Your task to perform on an android device: toggle notification dots Image 0: 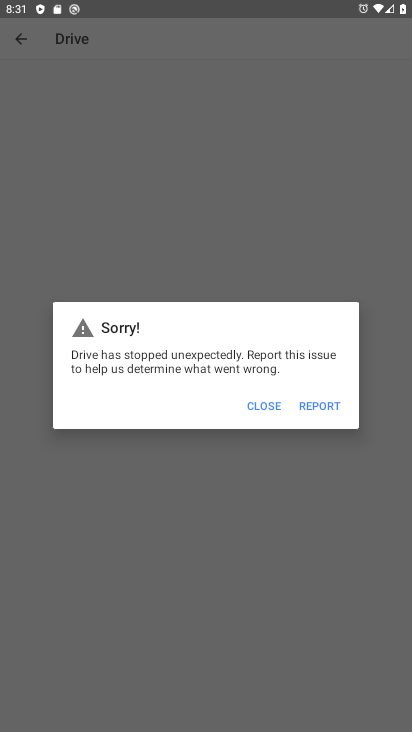
Step 0: click (264, 402)
Your task to perform on an android device: toggle notification dots Image 1: 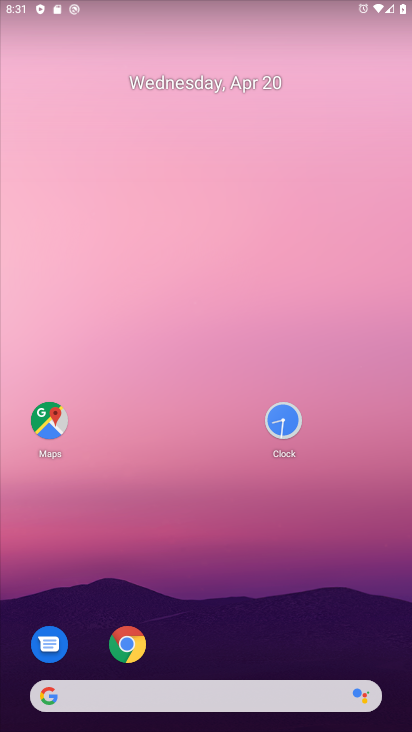
Step 1: drag from (269, 722) to (230, 41)
Your task to perform on an android device: toggle notification dots Image 2: 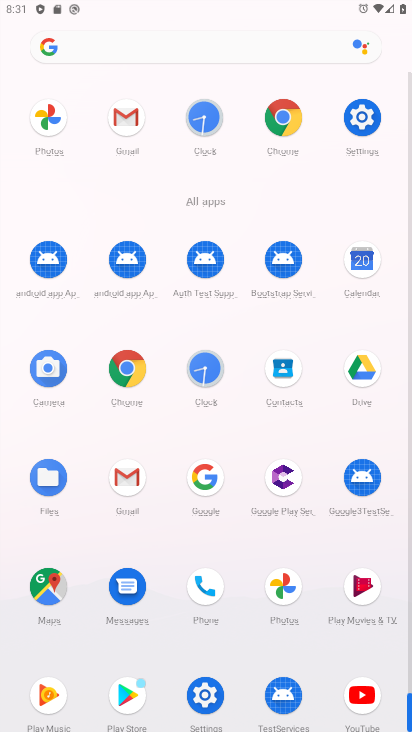
Step 2: click (215, 692)
Your task to perform on an android device: toggle notification dots Image 3: 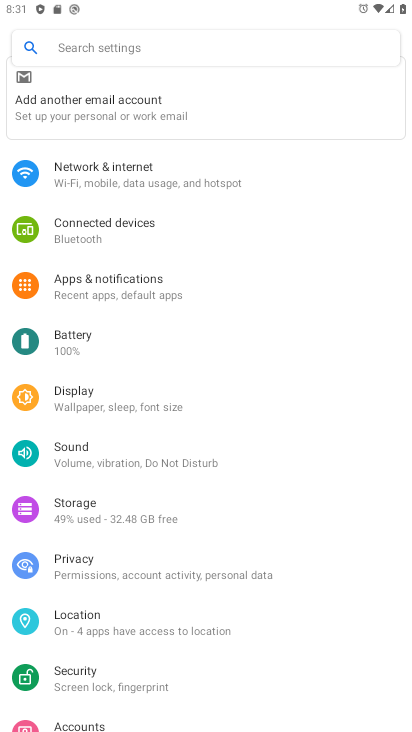
Step 3: click (141, 278)
Your task to perform on an android device: toggle notification dots Image 4: 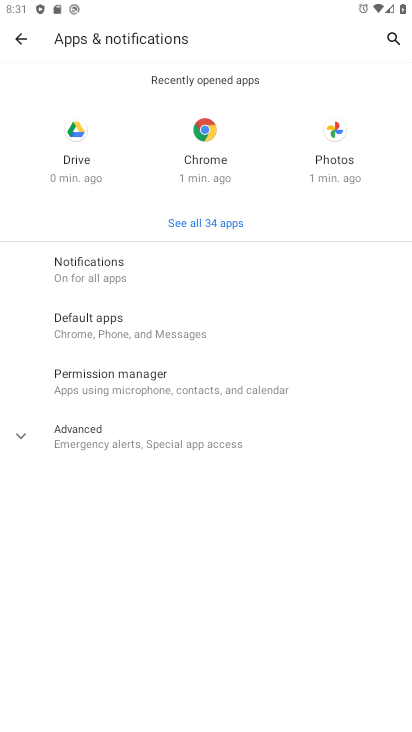
Step 4: click (134, 437)
Your task to perform on an android device: toggle notification dots Image 5: 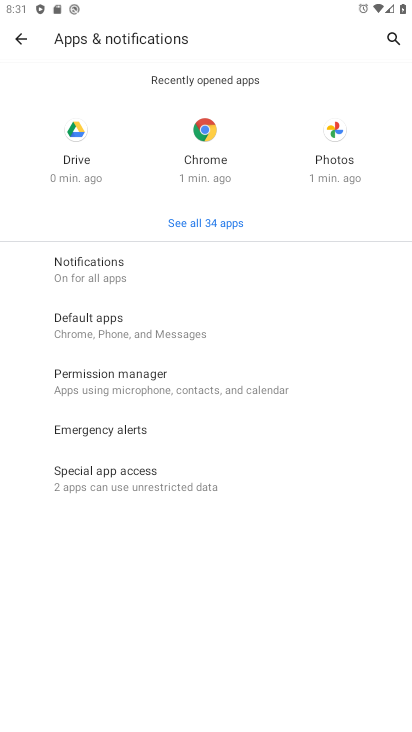
Step 5: click (149, 271)
Your task to perform on an android device: toggle notification dots Image 6: 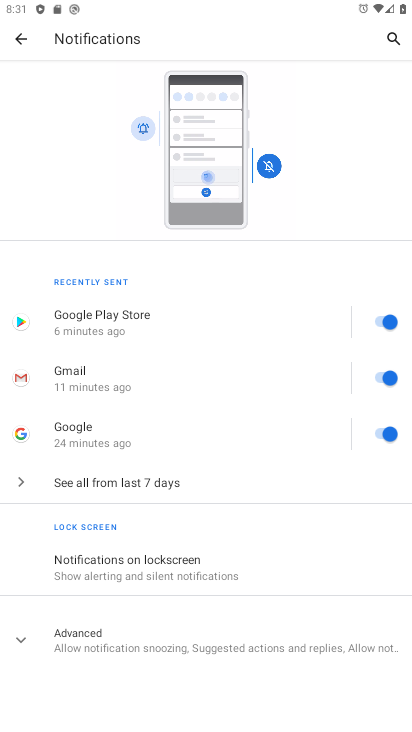
Step 6: drag from (212, 664) to (246, 237)
Your task to perform on an android device: toggle notification dots Image 7: 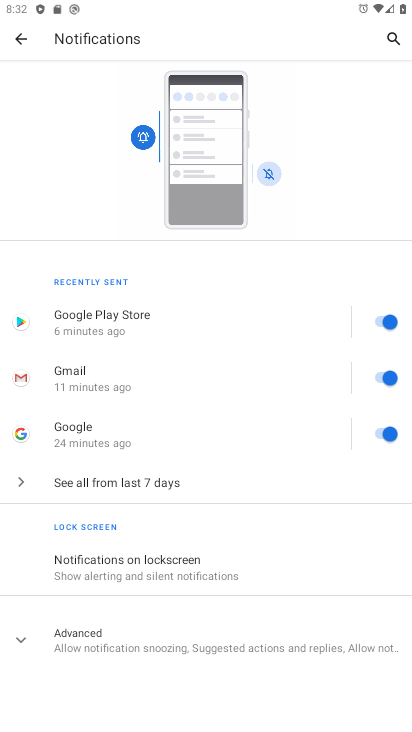
Step 7: click (155, 637)
Your task to perform on an android device: toggle notification dots Image 8: 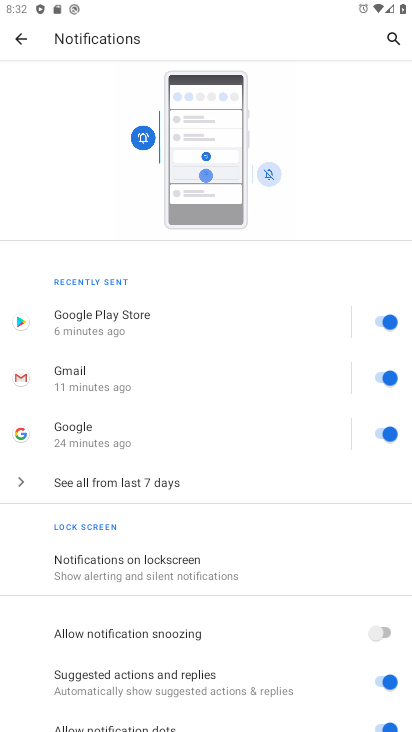
Step 8: drag from (150, 678) to (206, 259)
Your task to perform on an android device: toggle notification dots Image 9: 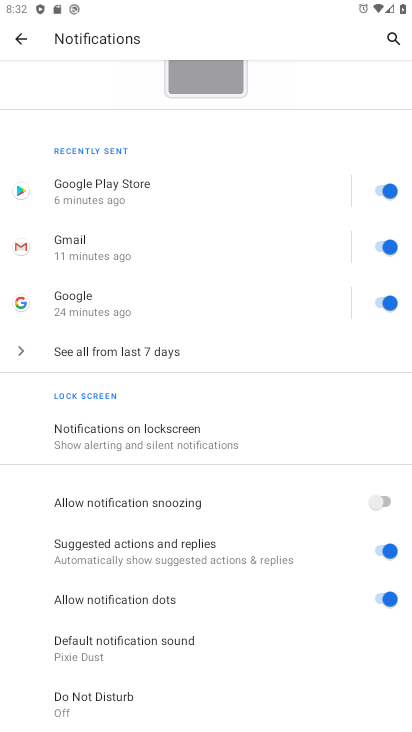
Step 9: click (385, 599)
Your task to perform on an android device: toggle notification dots Image 10: 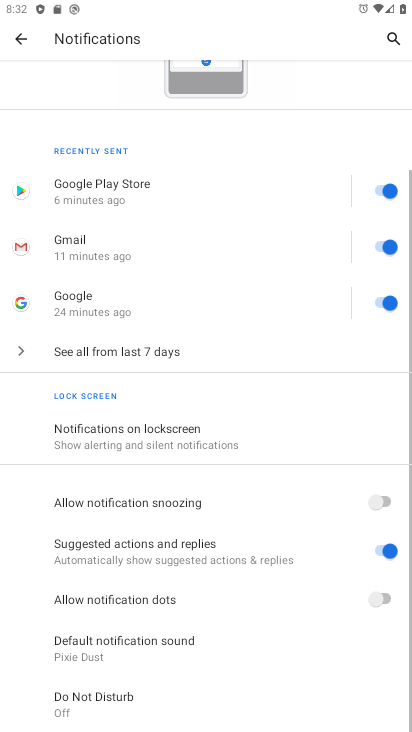
Step 10: task complete